Your task to perform on an android device: Add "alienware aurora" to the cart on ebay.com Image 0: 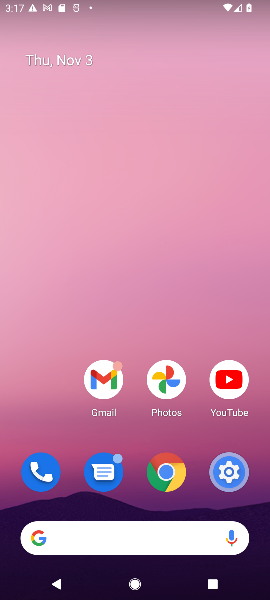
Step 0: click (162, 540)
Your task to perform on an android device: Add "alienware aurora" to the cart on ebay.com Image 1: 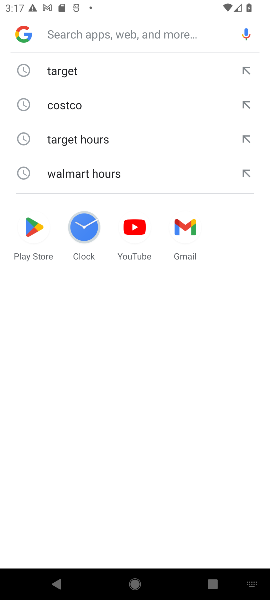
Step 1: type "ebay.com"
Your task to perform on an android device: Add "alienware aurora" to the cart on ebay.com Image 2: 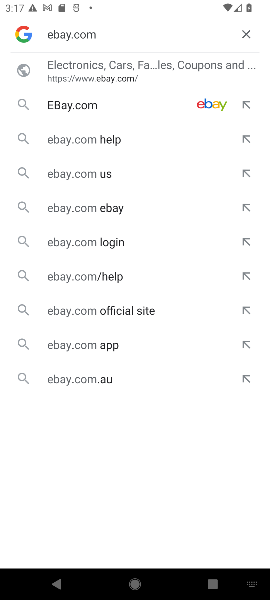
Step 2: click (102, 107)
Your task to perform on an android device: Add "alienware aurora" to the cart on ebay.com Image 3: 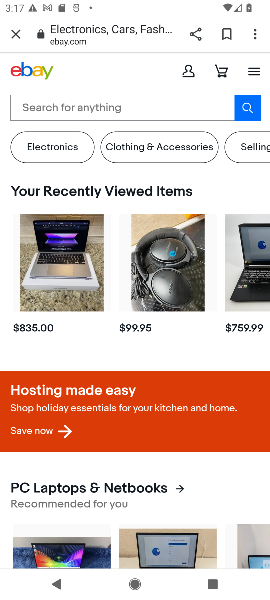
Step 3: click (102, 107)
Your task to perform on an android device: Add "alienware aurora" to the cart on ebay.com Image 4: 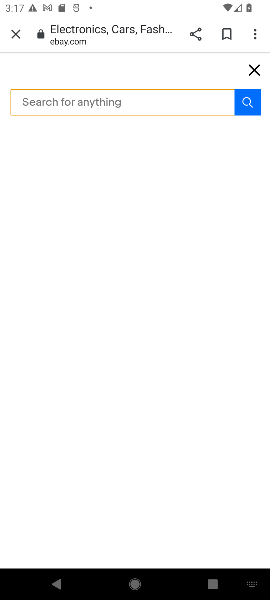
Step 4: type "alienwear"
Your task to perform on an android device: Add "alienware aurora" to the cart on ebay.com Image 5: 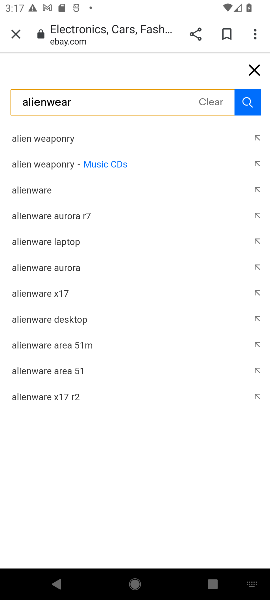
Step 5: click (242, 106)
Your task to perform on an android device: Add "alienware aurora" to the cart on ebay.com Image 6: 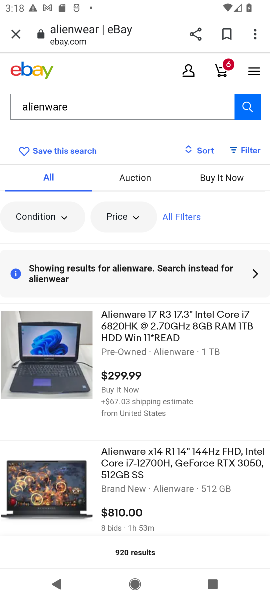
Step 6: click (111, 352)
Your task to perform on an android device: Add "alienware aurora" to the cart on ebay.com Image 7: 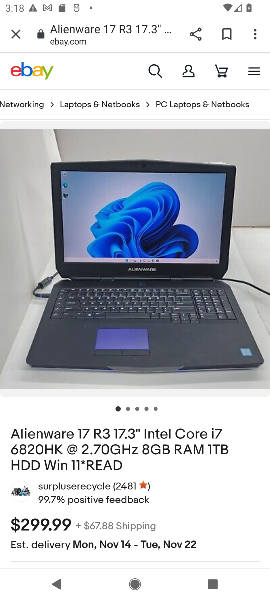
Step 7: drag from (149, 481) to (156, 172)
Your task to perform on an android device: Add "alienware aurora" to the cart on ebay.com Image 8: 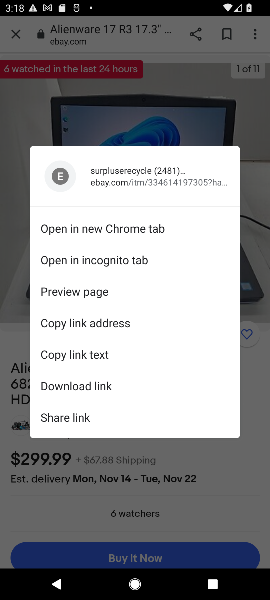
Step 8: click (175, 500)
Your task to perform on an android device: Add "alienware aurora" to the cart on ebay.com Image 9: 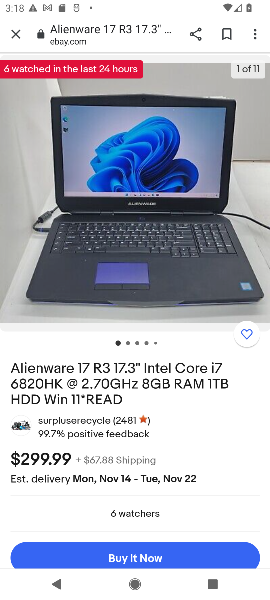
Step 9: drag from (226, 484) to (217, 176)
Your task to perform on an android device: Add "alienware aurora" to the cart on ebay.com Image 10: 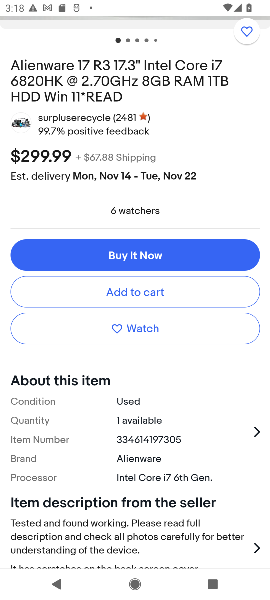
Step 10: click (186, 294)
Your task to perform on an android device: Add "alienware aurora" to the cart on ebay.com Image 11: 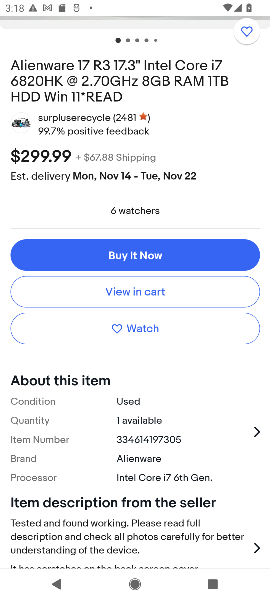
Step 11: task complete